Your task to perform on an android device: Add razer blackwidow to the cart on newegg, then select checkout. Image 0: 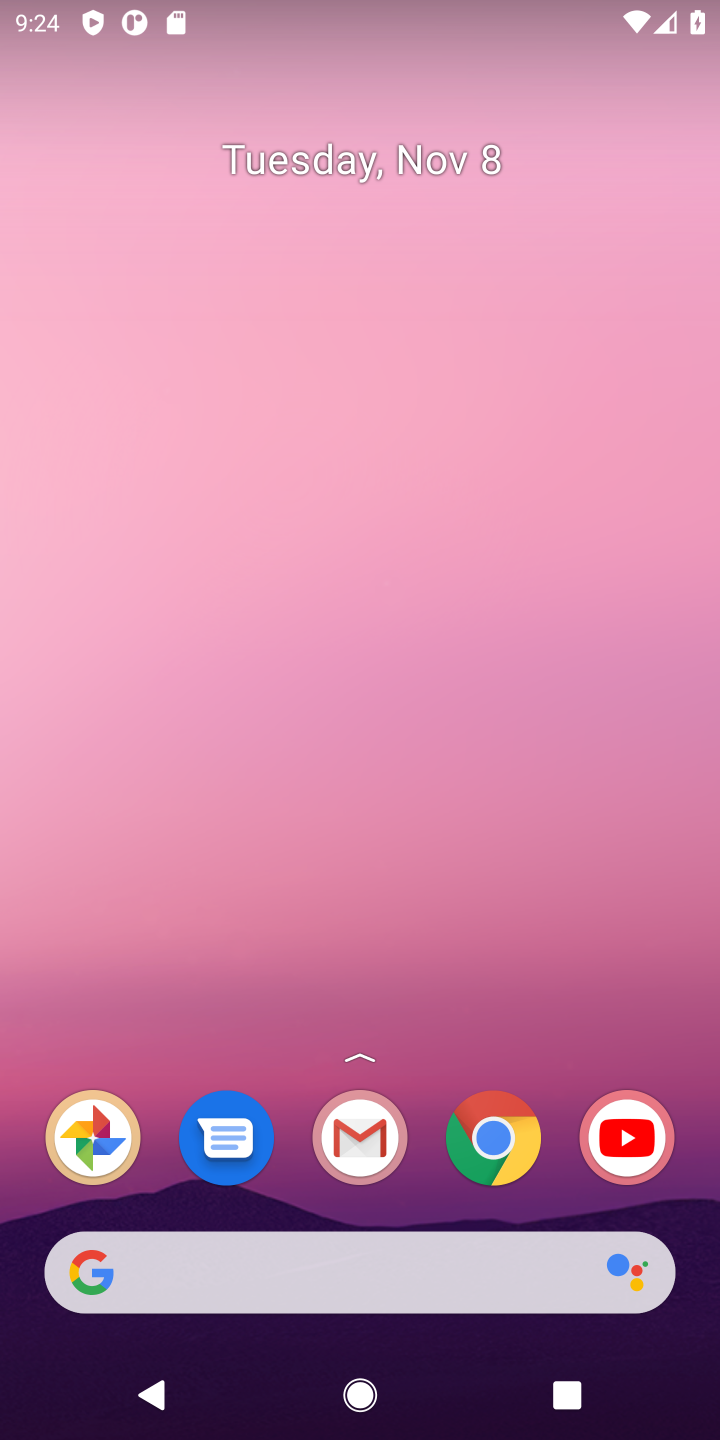
Step 0: press home button
Your task to perform on an android device: Add razer blackwidow to the cart on newegg, then select checkout. Image 1: 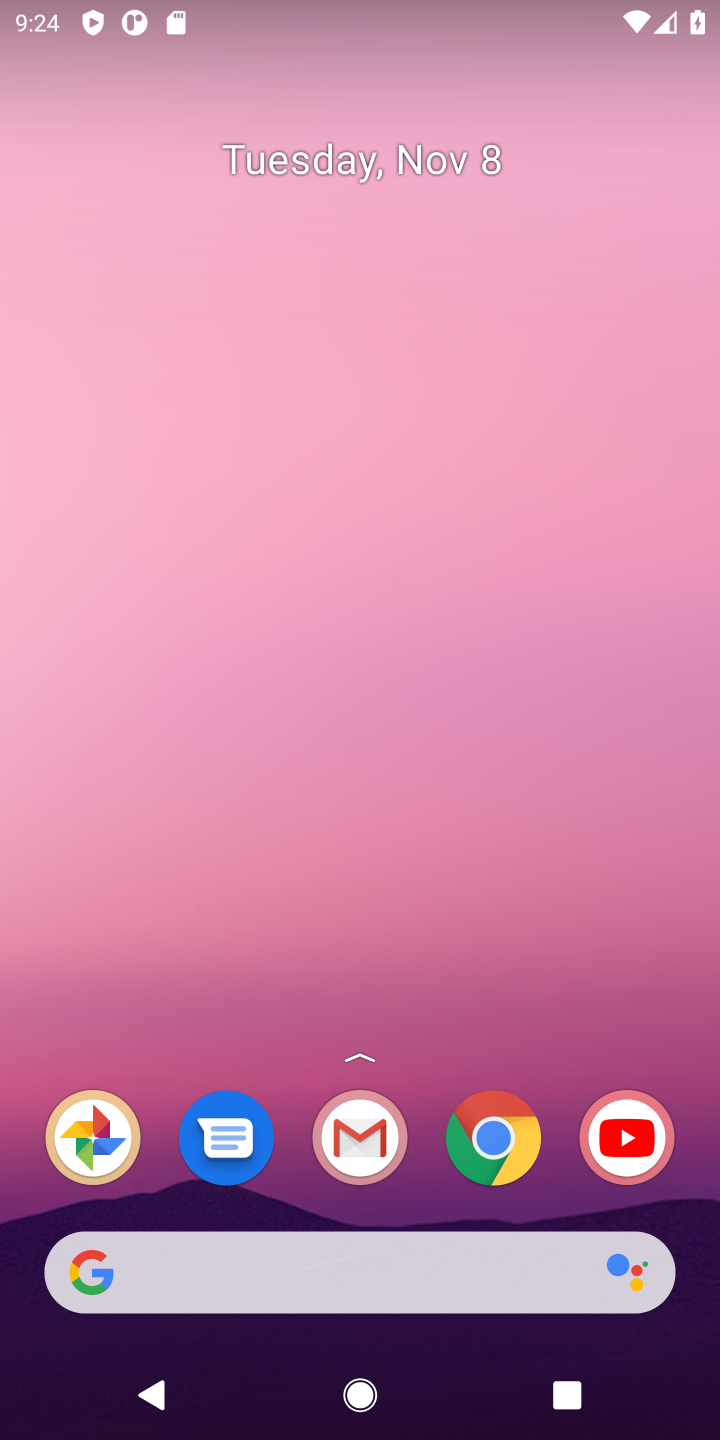
Step 1: click (509, 1145)
Your task to perform on an android device: Add razer blackwidow to the cart on newegg, then select checkout. Image 2: 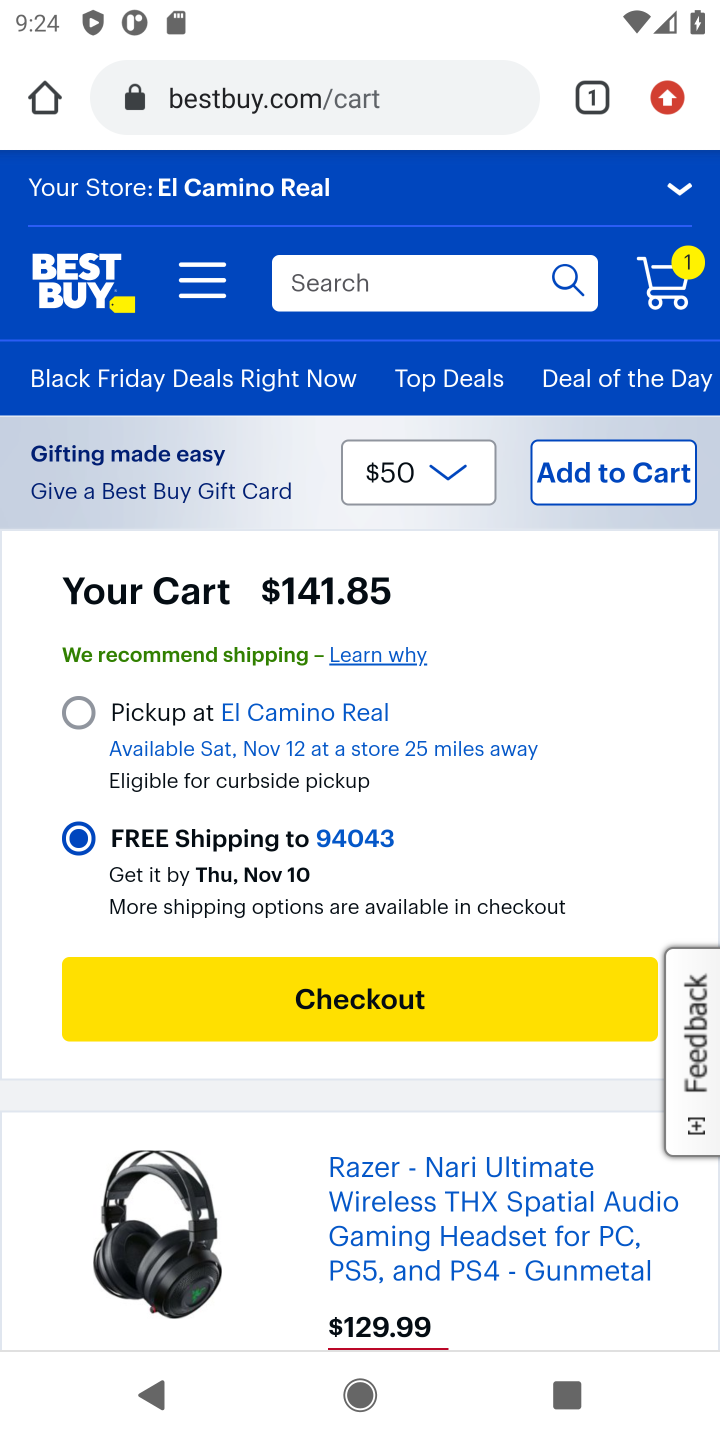
Step 2: click (408, 93)
Your task to perform on an android device: Add razer blackwidow to the cart on newegg, then select checkout. Image 3: 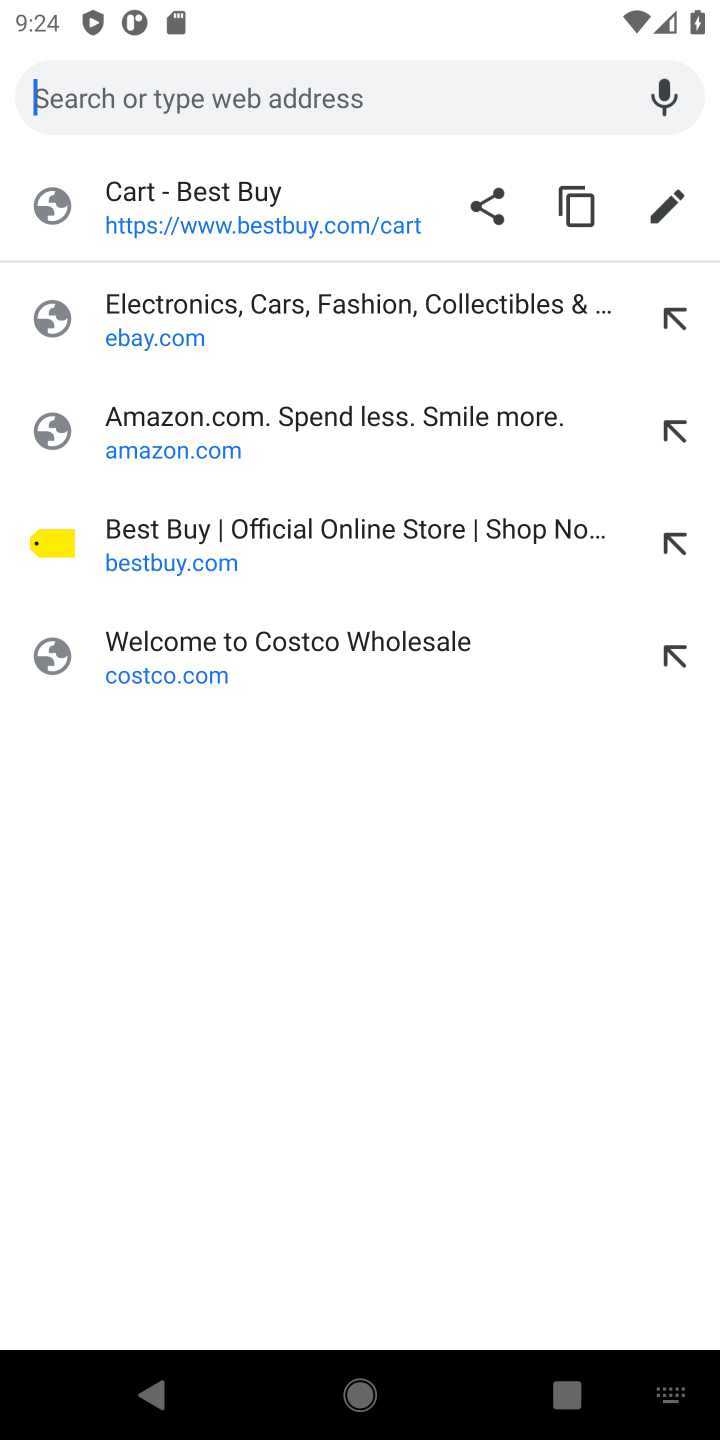
Step 3: type "newegg"
Your task to perform on an android device: Add razer blackwidow to the cart on newegg, then select checkout. Image 4: 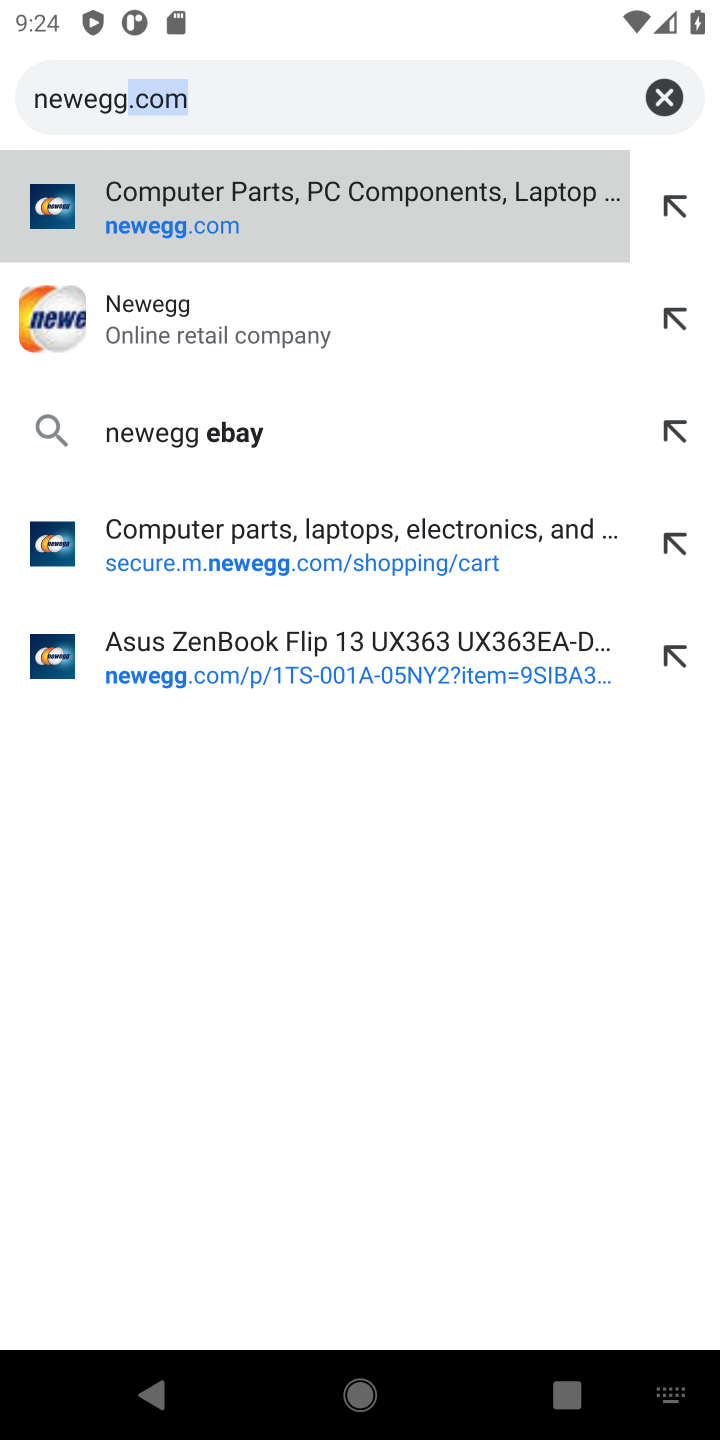
Step 4: press enter
Your task to perform on an android device: Add razer blackwidow to the cart on newegg, then select checkout. Image 5: 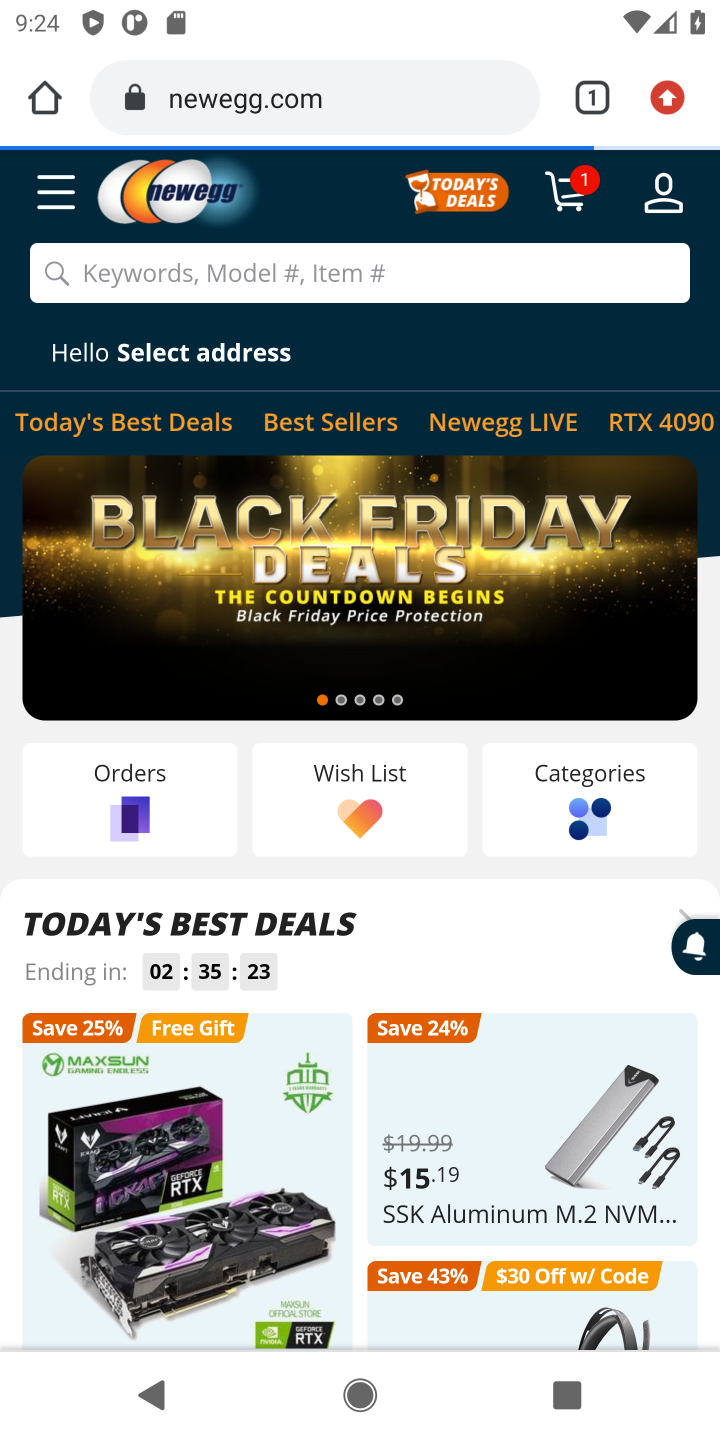
Step 5: click (285, 278)
Your task to perform on an android device: Add razer blackwidow to the cart on newegg, then select checkout. Image 6: 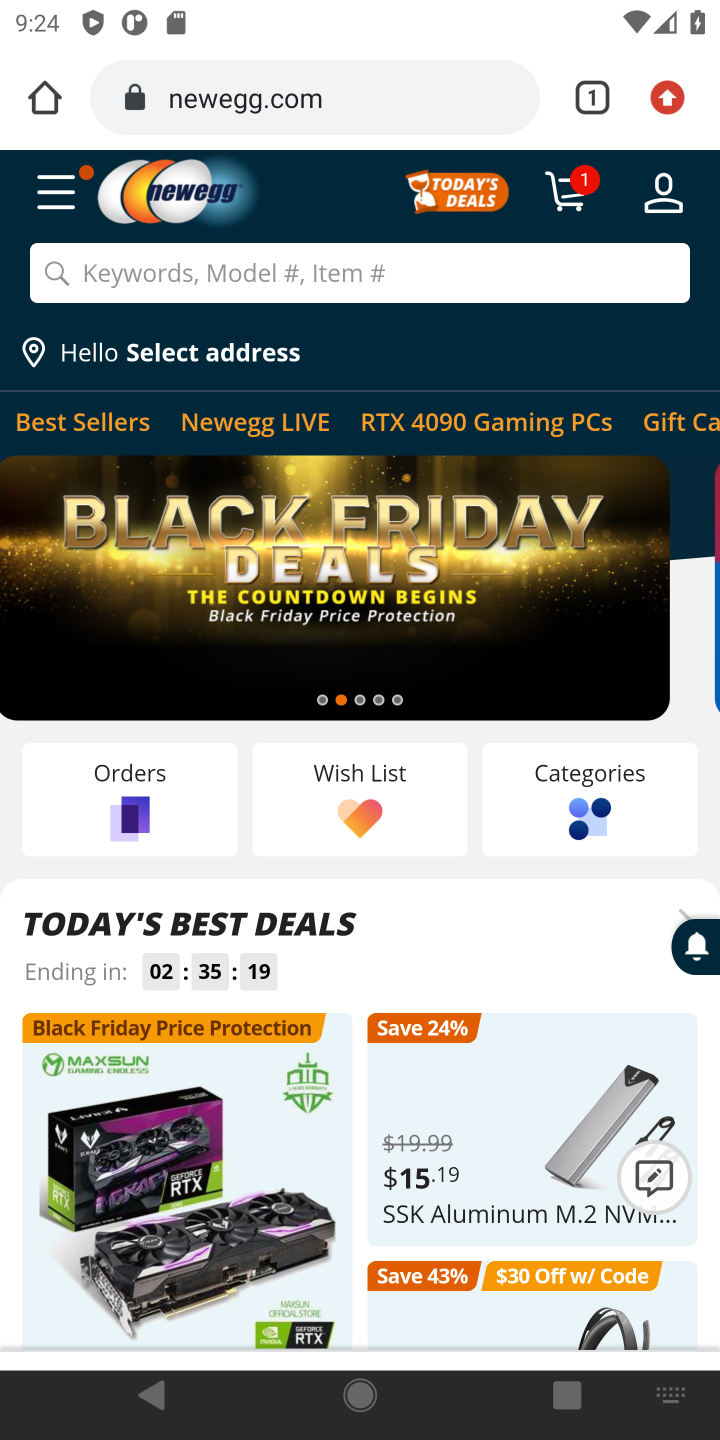
Step 6: click (281, 267)
Your task to perform on an android device: Add razer blackwidow to the cart on newegg, then select checkout. Image 7: 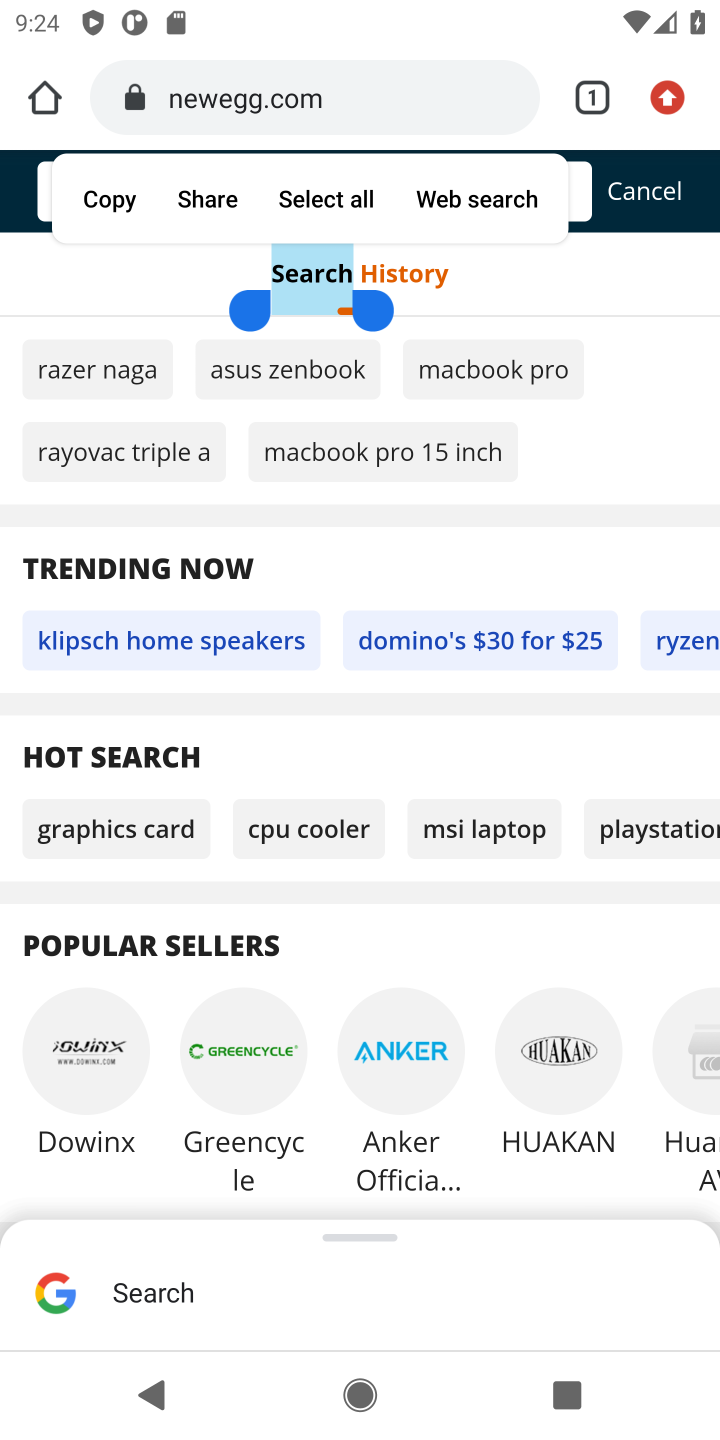
Step 7: click (583, 186)
Your task to perform on an android device: Add razer blackwidow to the cart on newegg, then select checkout. Image 8: 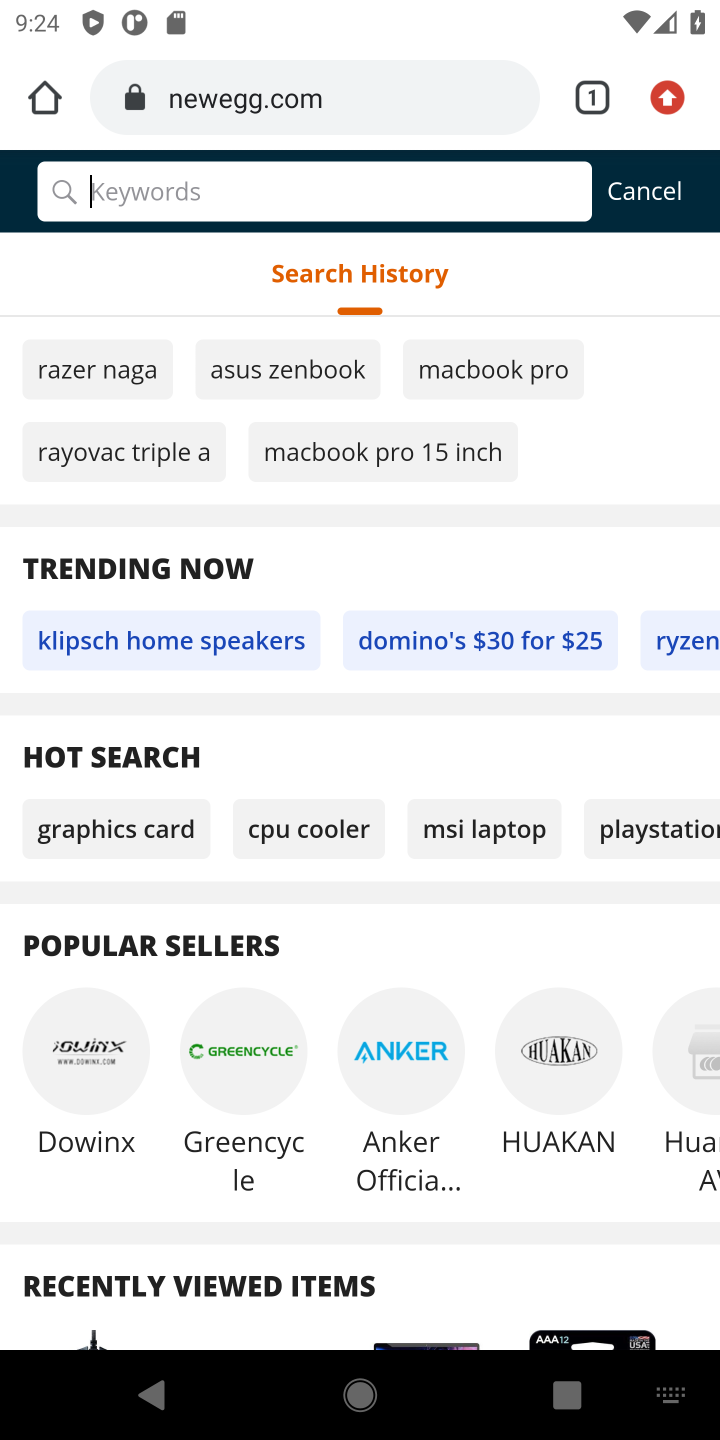
Step 8: type " razer blackwidow"
Your task to perform on an android device: Add razer blackwidow to the cart on newegg, then select checkout. Image 9: 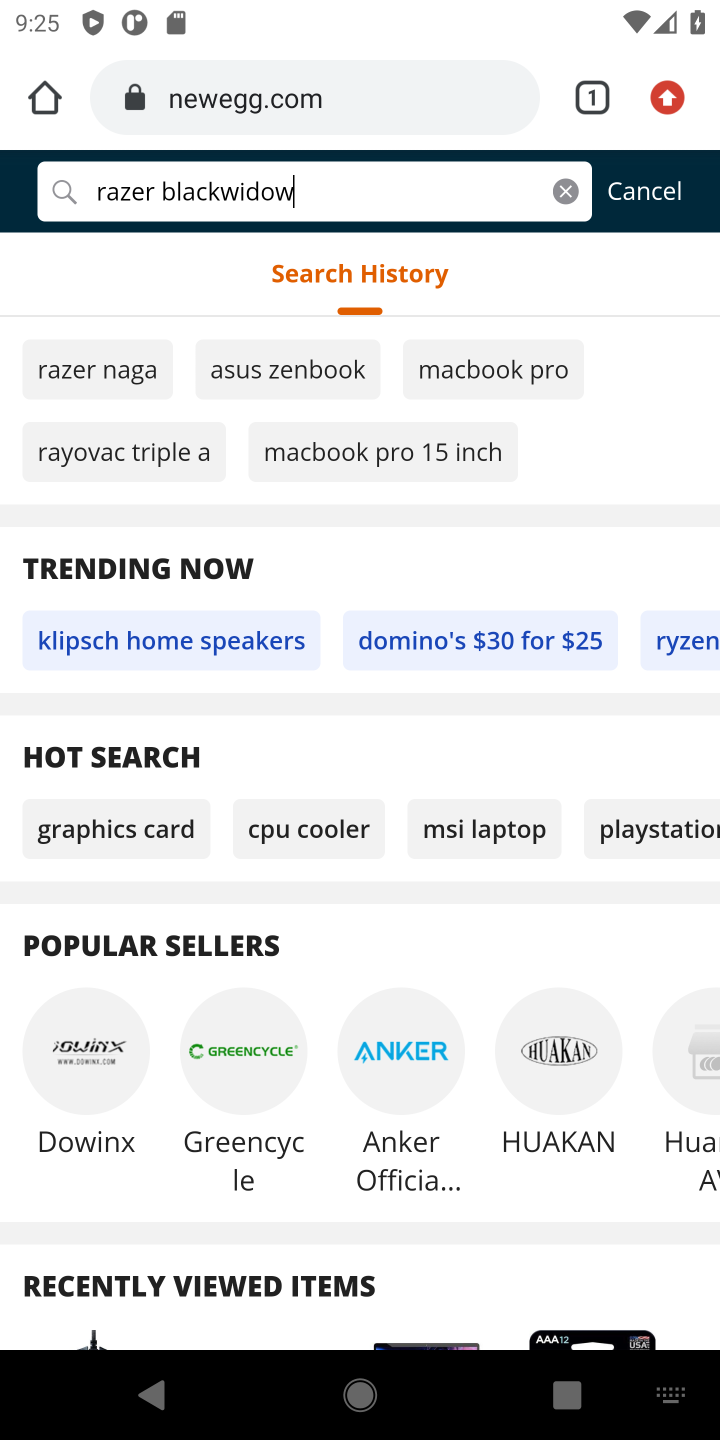
Step 9: press enter
Your task to perform on an android device: Add razer blackwidow to the cart on newegg, then select checkout. Image 10: 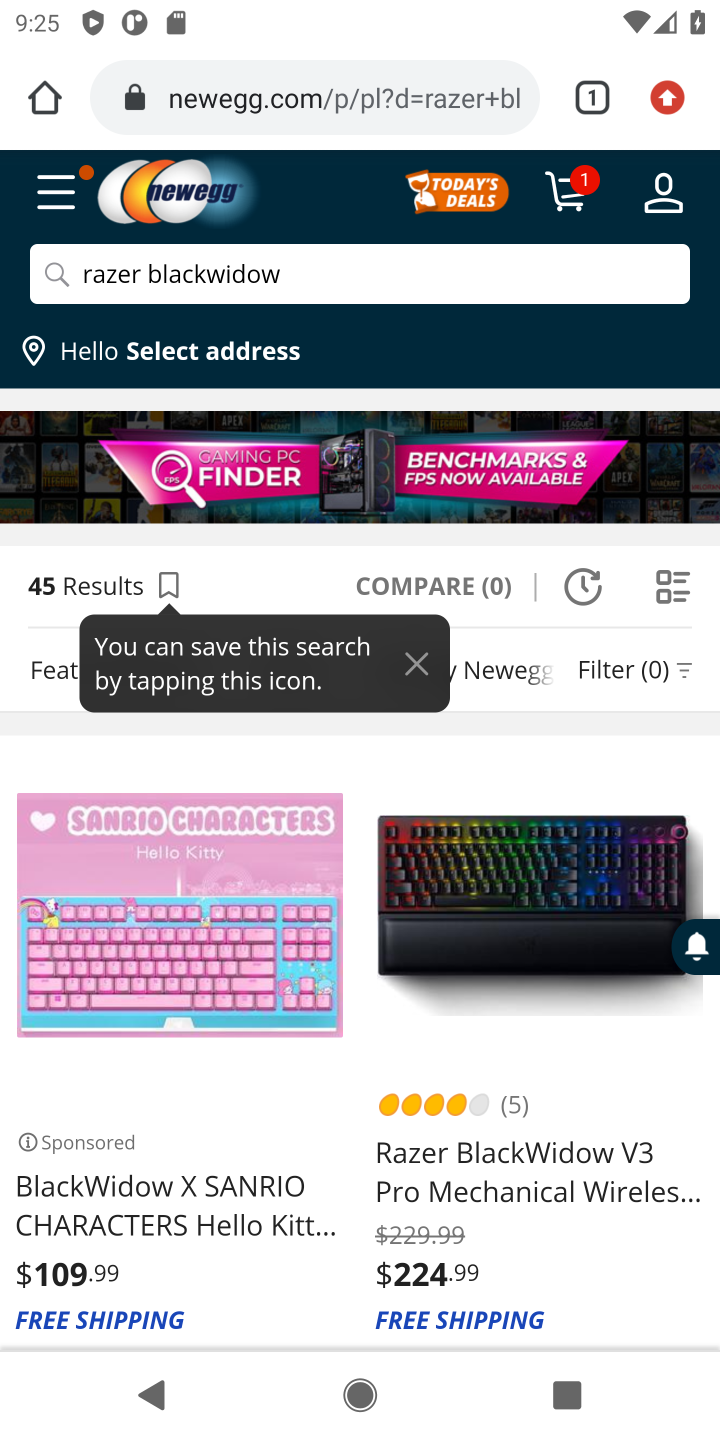
Step 10: click (570, 1182)
Your task to perform on an android device: Add razer blackwidow to the cart on newegg, then select checkout. Image 11: 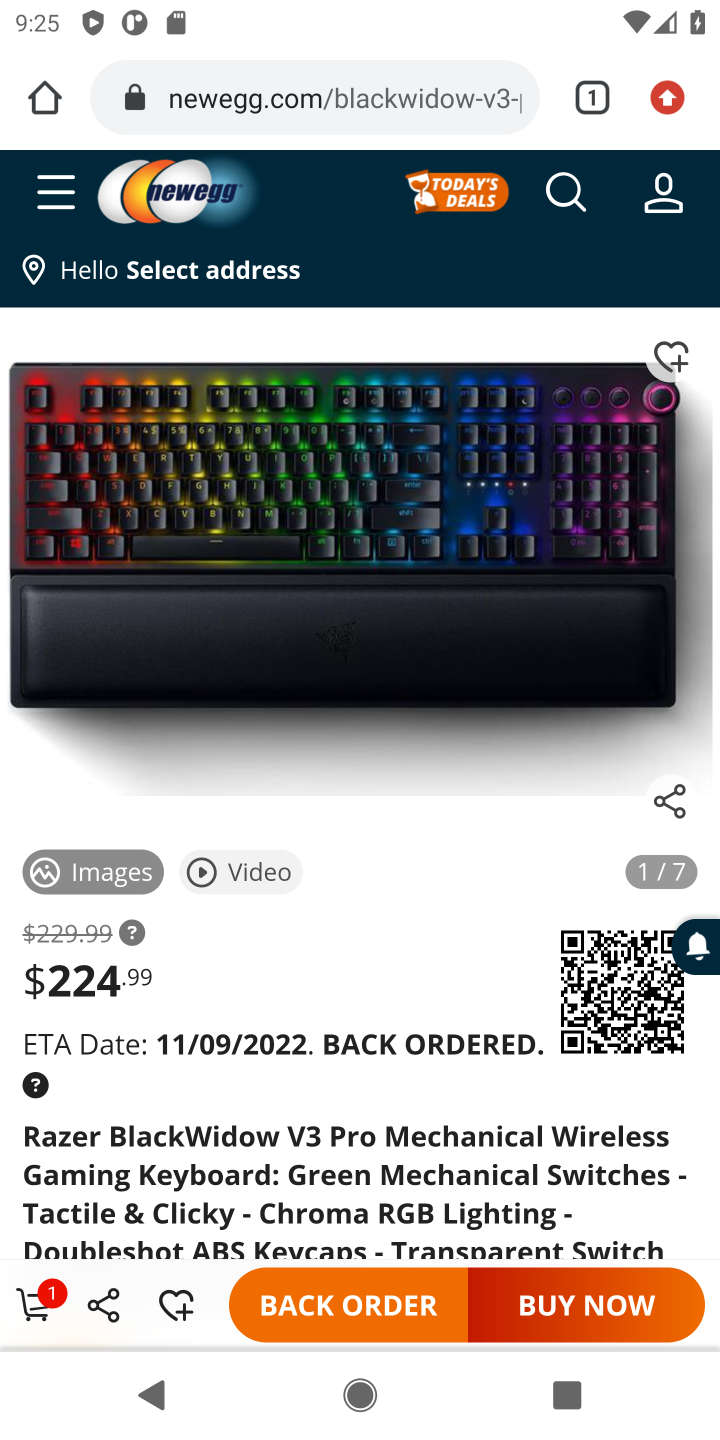
Step 11: click (342, 1317)
Your task to perform on an android device: Add razer blackwidow to the cart on newegg, then select checkout. Image 12: 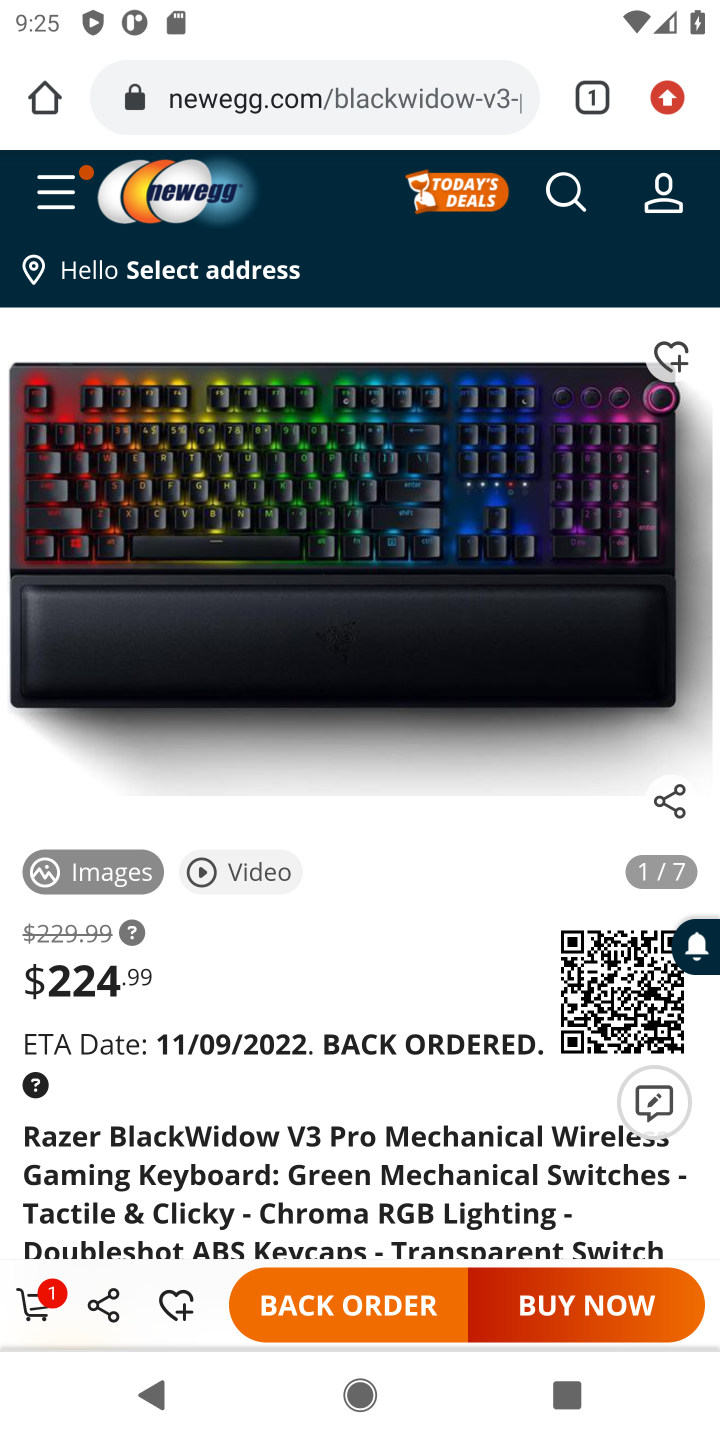
Step 12: click (337, 1305)
Your task to perform on an android device: Add razer blackwidow to the cart on newegg, then select checkout. Image 13: 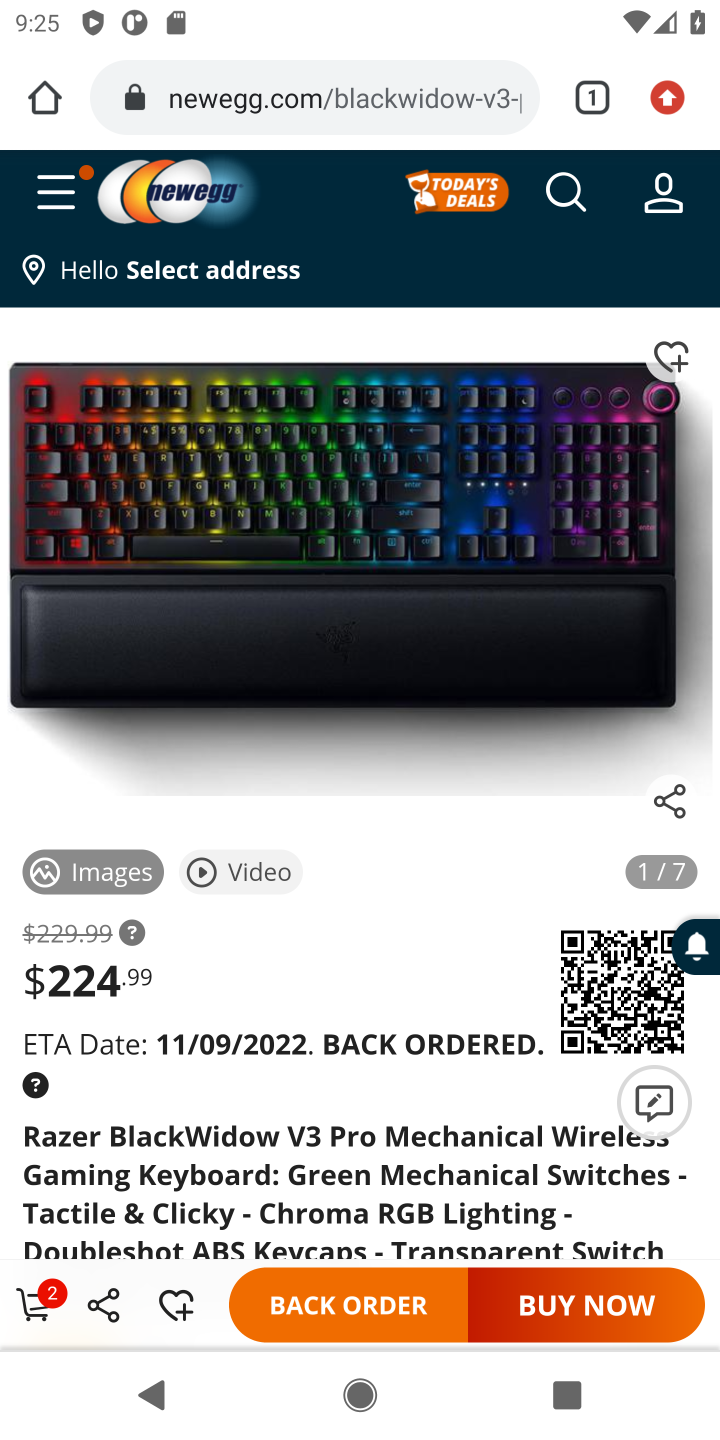
Step 13: drag from (192, 1117) to (325, 907)
Your task to perform on an android device: Add razer blackwidow to the cart on newegg, then select checkout. Image 14: 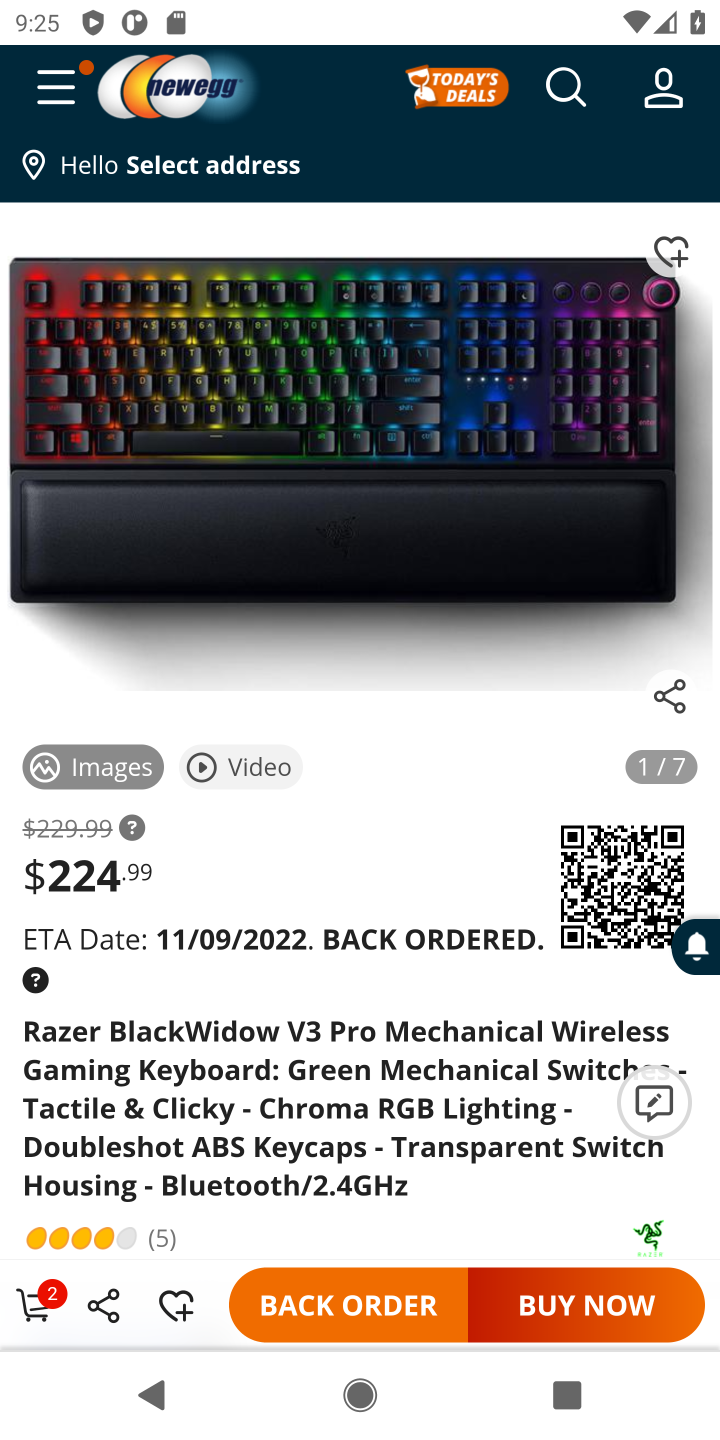
Step 14: click (40, 1294)
Your task to perform on an android device: Add razer blackwidow to the cart on newegg, then select checkout. Image 15: 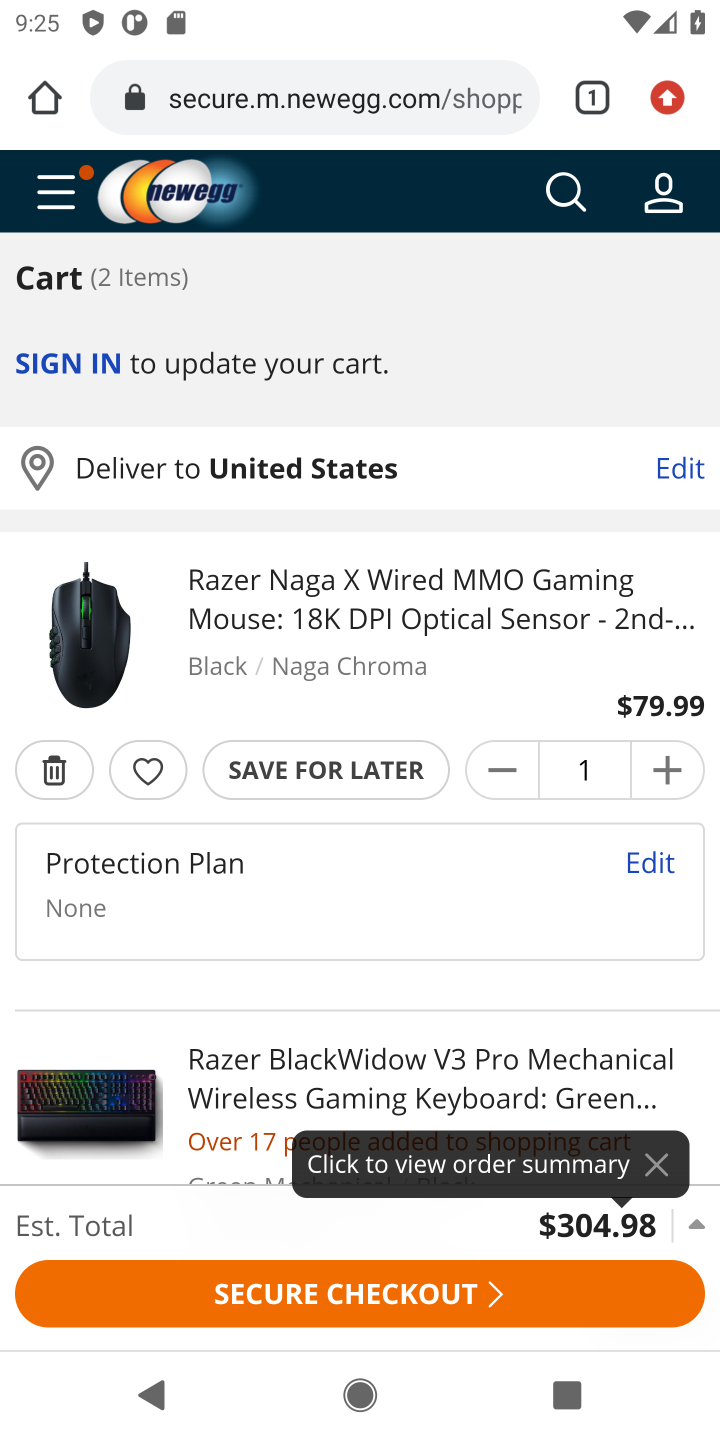
Step 15: click (46, 770)
Your task to perform on an android device: Add razer blackwidow to the cart on newegg, then select checkout. Image 16: 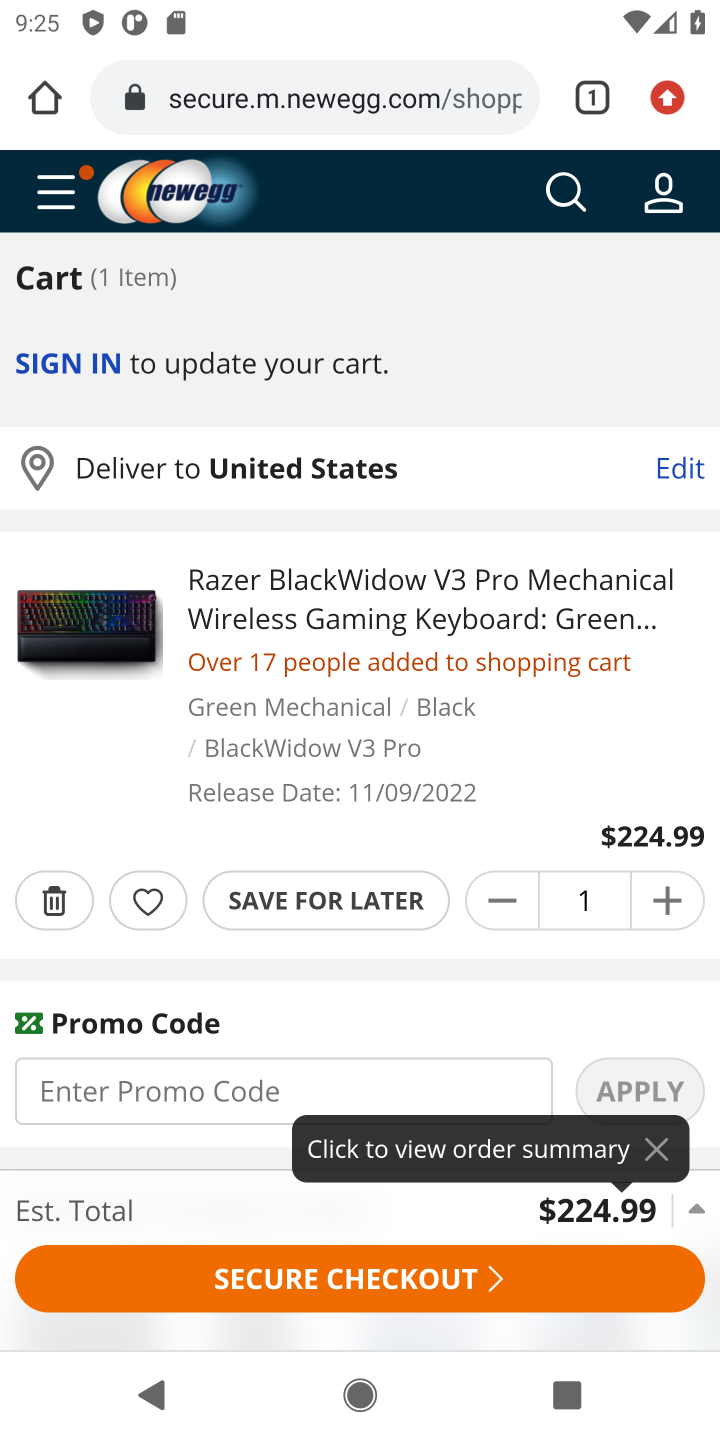
Step 16: click (360, 1280)
Your task to perform on an android device: Add razer blackwidow to the cart on newegg, then select checkout. Image 17: 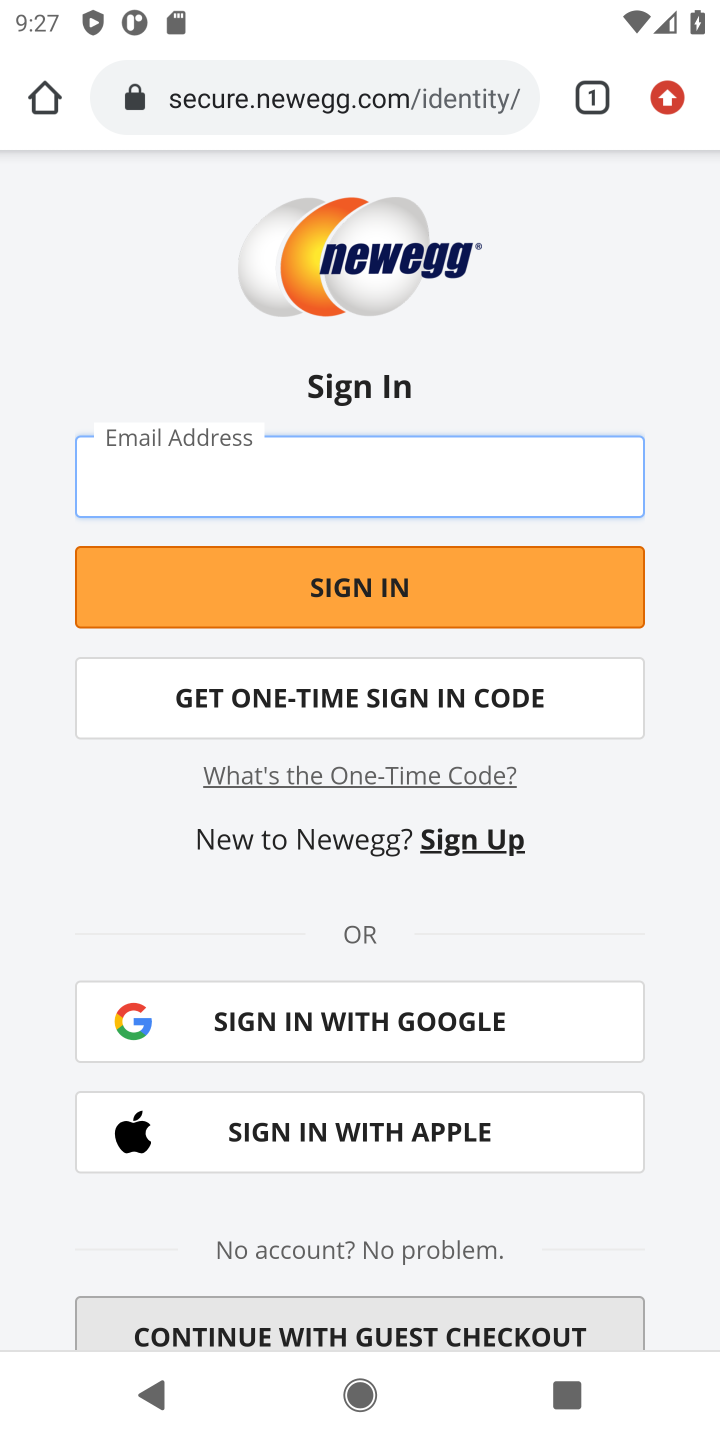
Step 17: task complete